Your task to perform on an android device: Set the phone to "Do not disturb". Image 0: 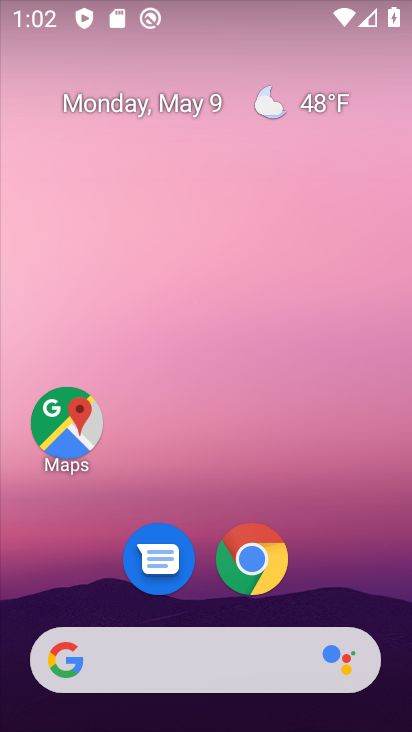
Step 0: click (225, 226)
Your task to perform on an android device: Set the phone to "Do not disturb". Image 1: 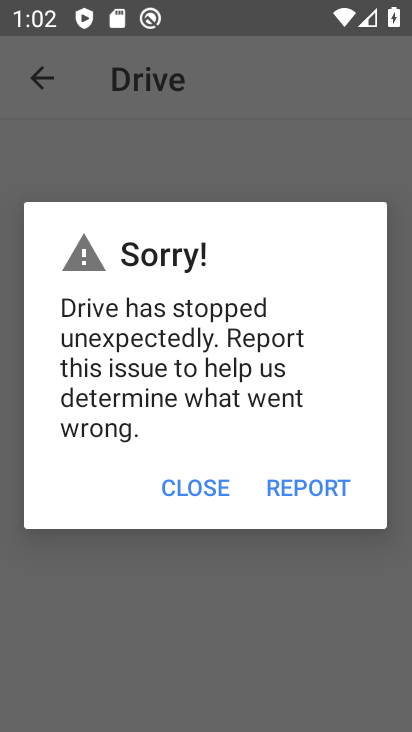
Step 1: drag from (231, 578) to (359, 49)
Your task to perform on an android device: Set the phone to "Do not disturb". Image 2: 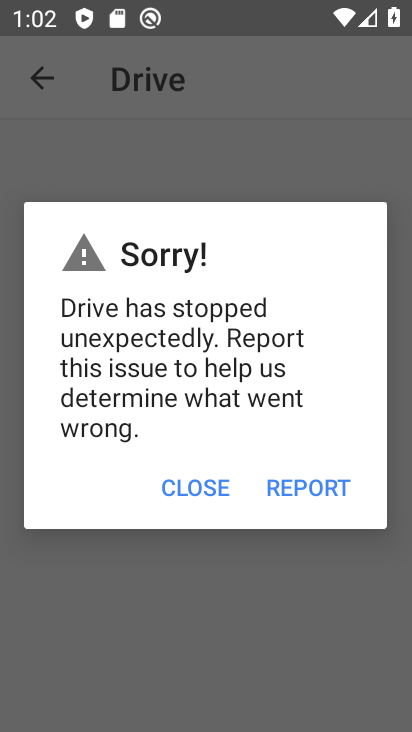
Step 2: click (198, 479)
Your task to perform on an android device: Set the phone to "Do not disturb". Image 3: 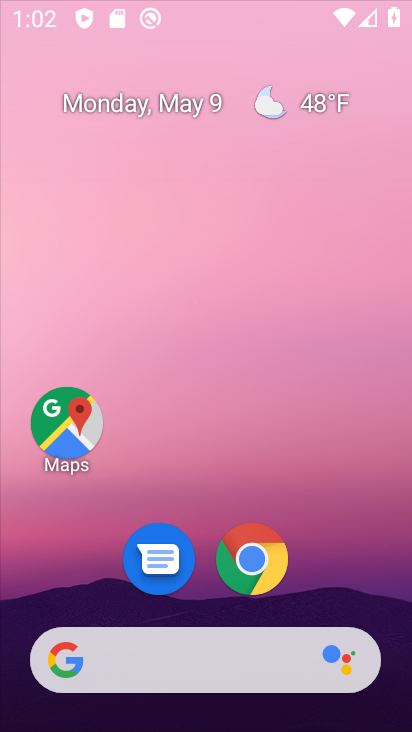
Step 3: drag from (238, 591) to (342, 135)
Your task to perform on an android device: Set the phone to "Do not disturb". Image 4: 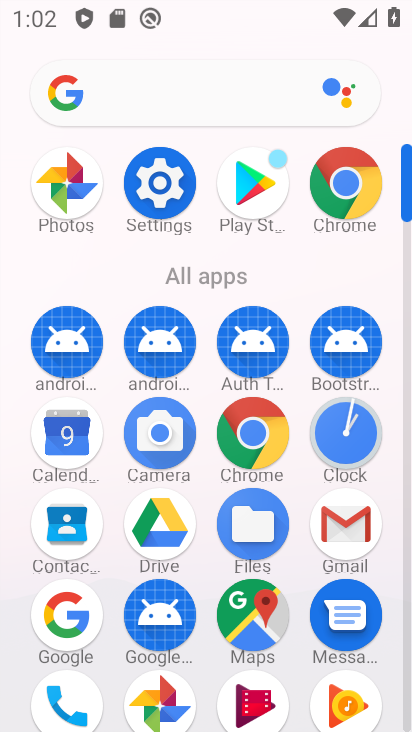
Step 4: click (168, 182)
Your task to perform on an android device: Set the phone to "Do not disturb". Image 5: 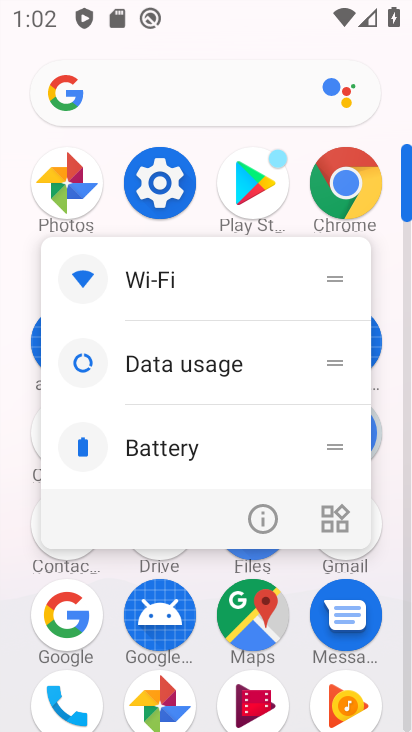
Step 5: click (277, 498)
Your task to perform on an android device: Set the phone to "Do not disturb". Image 6: 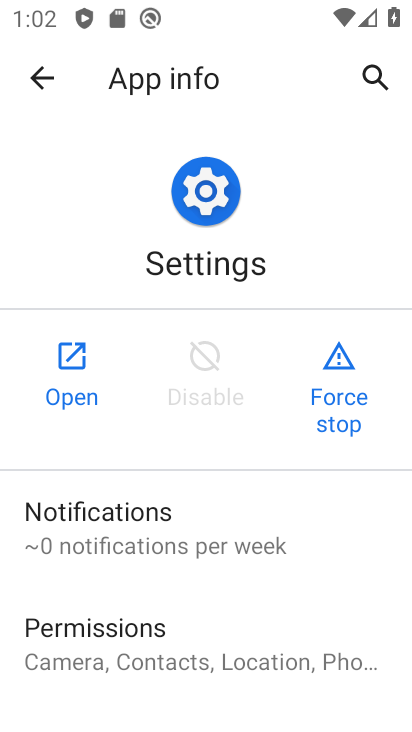
Step 6: click (76, 375)
Your task to perform on an android device: Set the phone to "Do not disturb". Image 7: 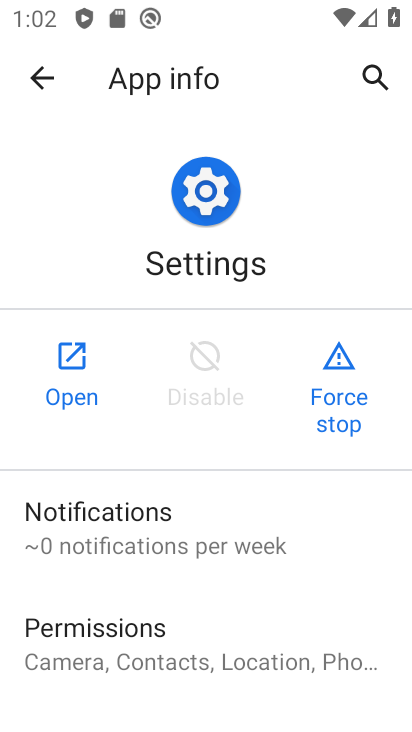
Step 7: click (76, 375)
Your task to perform on an android device: Set the phone to "Do not disturb". Image 8: 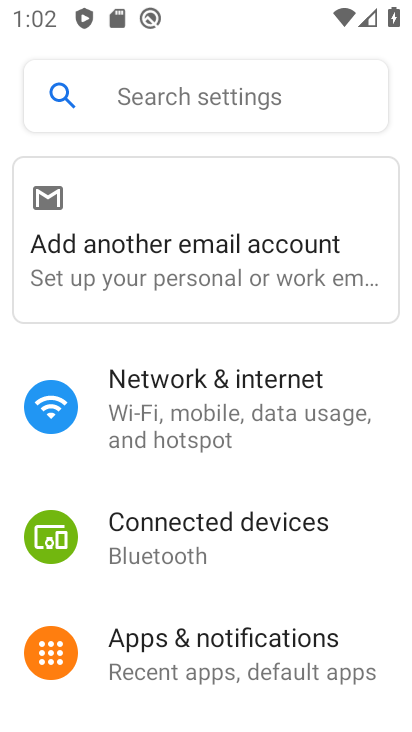
Step 8: drag from (235, 596) to (278, 249)
Your task to perform on an android device: Set the phone to "Do not disturb". Image 9: 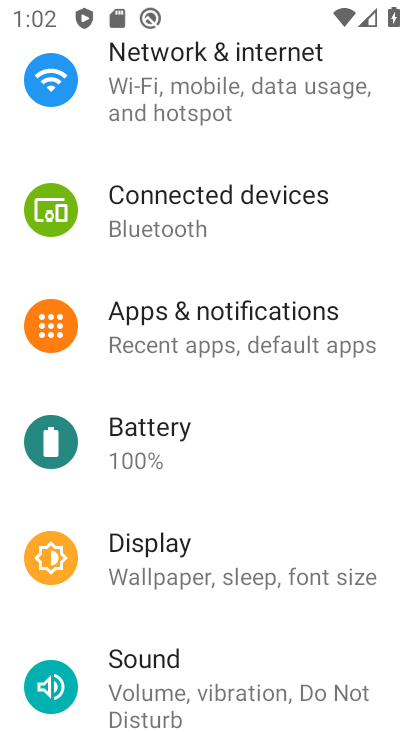
Step 9: click (196, 343)
Your task to perform on an android device: Set the phone to "Do not disturb". Image 10: 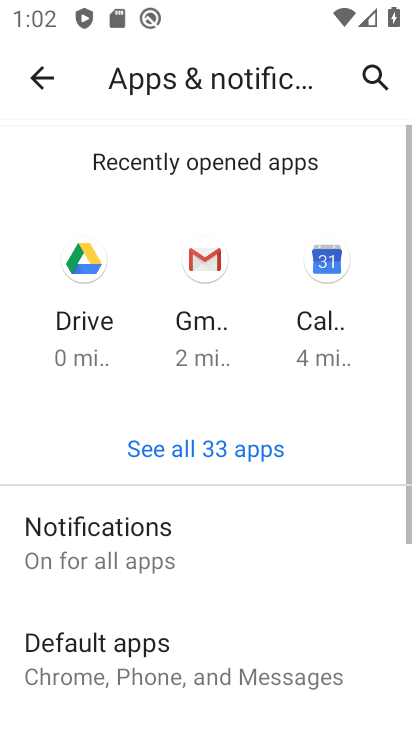
Step 10: drag from (208, 511) to (276, 159)
Your task to perform on an android device: Set the phone to "Do not disturb". Image 11: 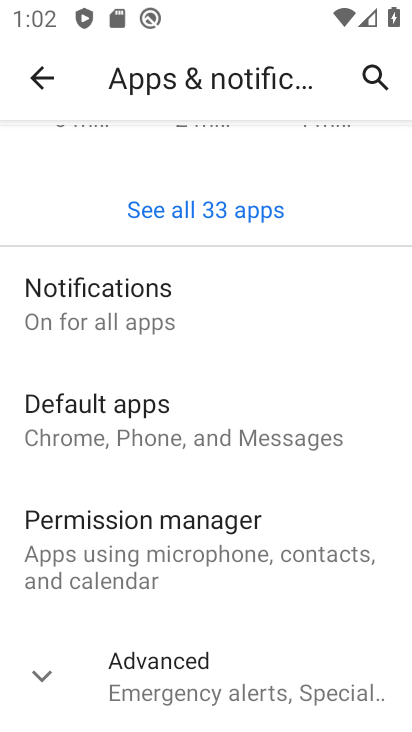
Step 11: click (177, 659)
Your task to perform on an android device: Set the phone to "Do not disturb". Image 12: 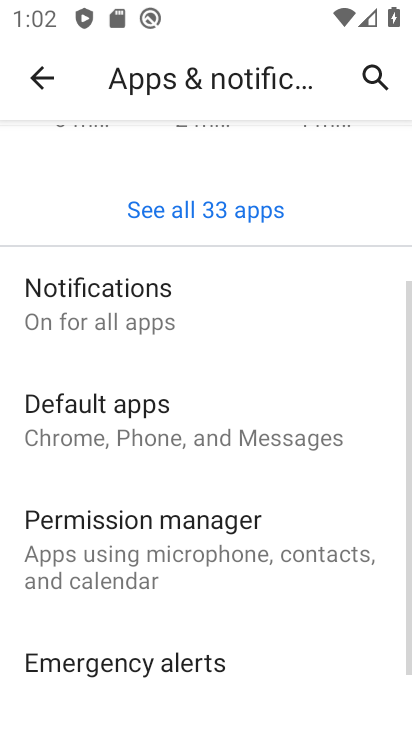
Step 12: click (134, 298)
Your task to perform on an android device: Set the phone to "Do not disturb". Image 13: 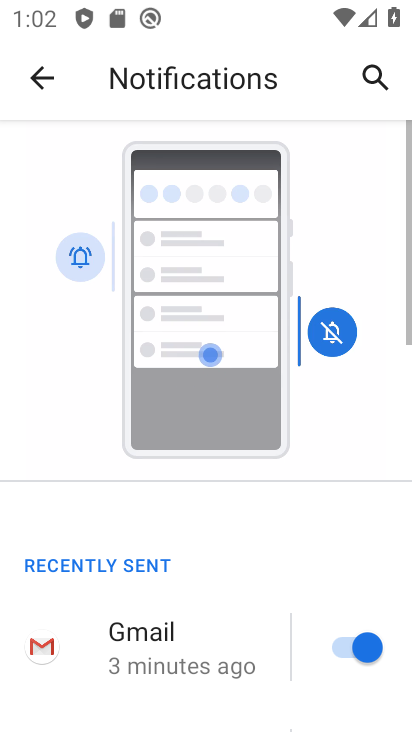
Step 13: drag from (222, 615) to (349, 32)
Your task to perform on an android device: Set the phone to "Do not disturb". Image 14: 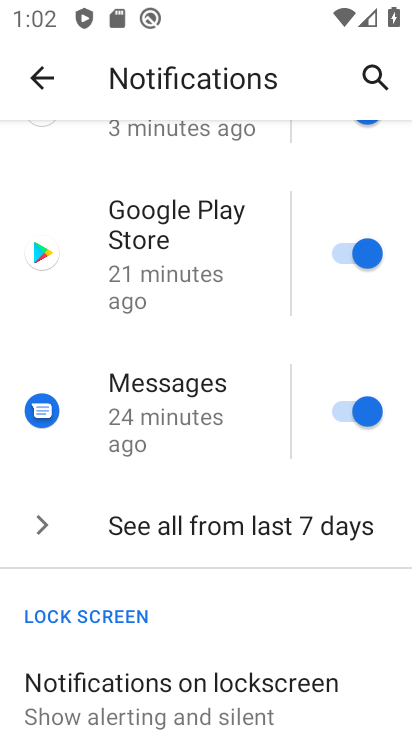
Step 14: drag from (256, 610) to (272, 150)
Your task to perform on an android device: Set the phone to "Do not disturb". Image 15: 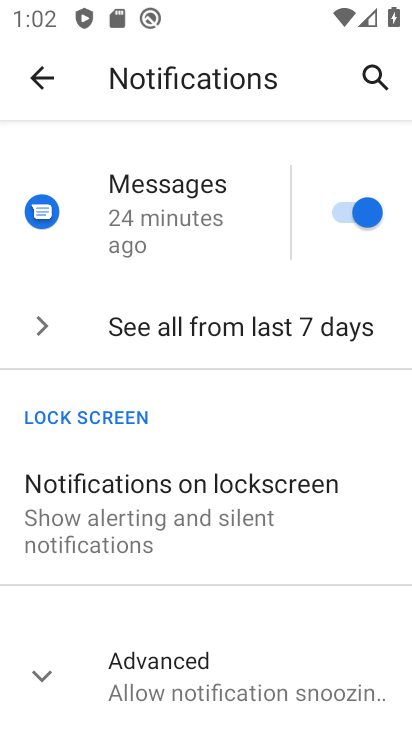
Step 15: click (213, 697)
Your task to perform on an android device: Set the phone to "Do not disturb". Image 16: 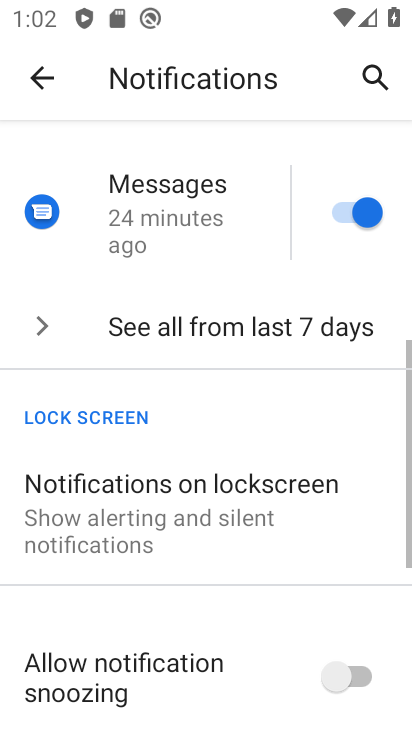
Step 16: drag from (214, 694) to (233, 153)
Your task to perform on an android device: Set the phone to "Do not disturb". Image 17: 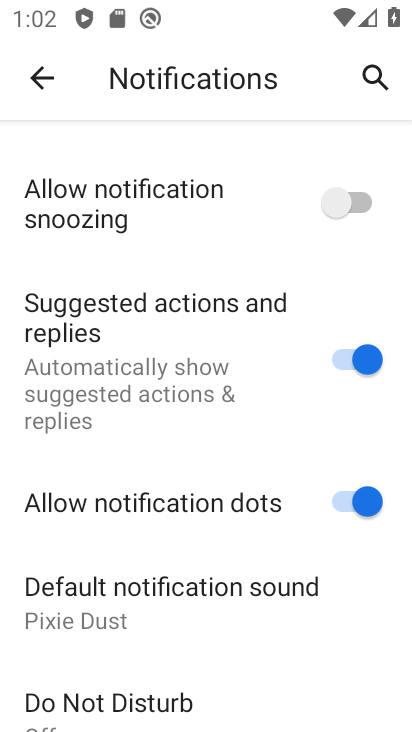
Step 17: click (188, 702)
Your task to perform on an android device: Set the phone to "Do not disturb". Image 18: 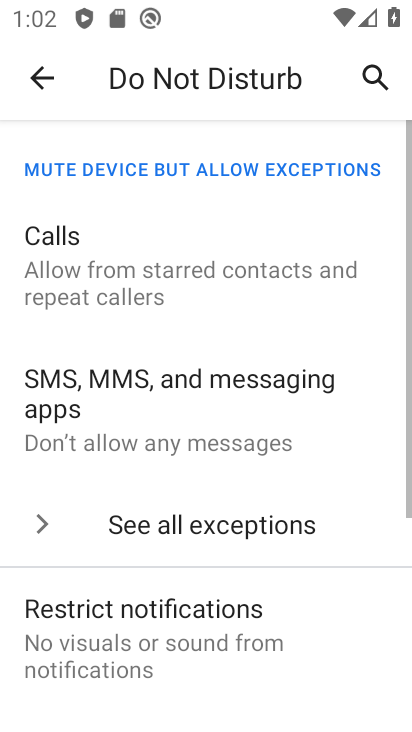
Step 18: drag from (188, 702) to (193, 229)
Your task to perform on an android device: Set the phone to "Do not disturb". Image 19: 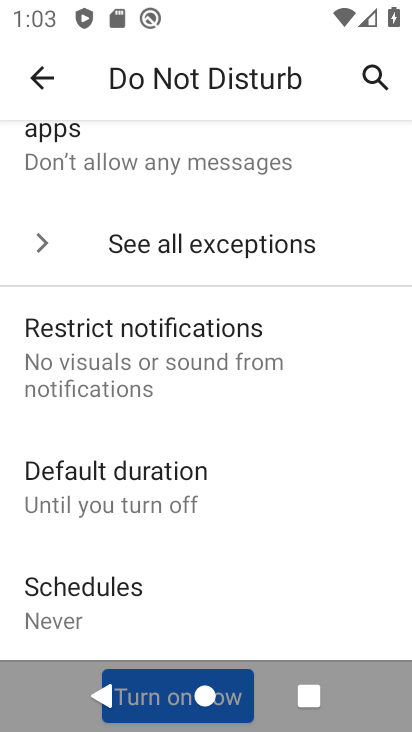
Step 19: drag from (197, 563) to (233, 303)
Your task to perform on an android device: Set the phone to "Do not disturb". Image 20: 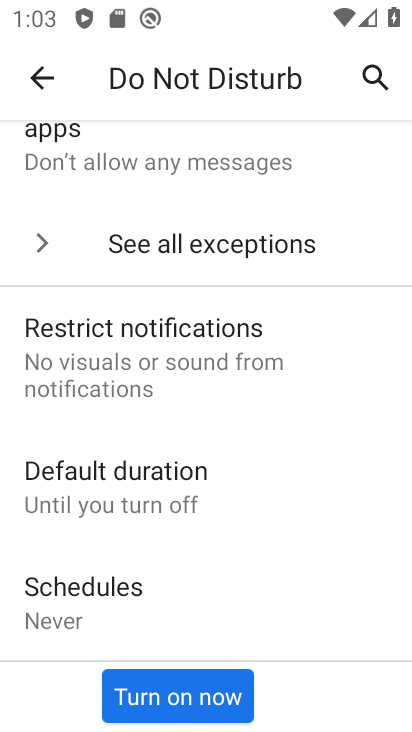
Step 20: click (149, 707)
Your task to perform on an android device: Set the phone to "Do not disturb". Image 21: 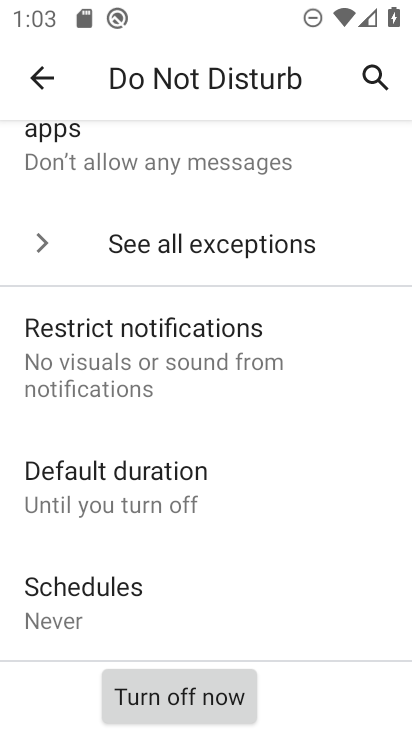
Step 21: task complete